Your task to perform on an android device: Open battery settings Image 0: 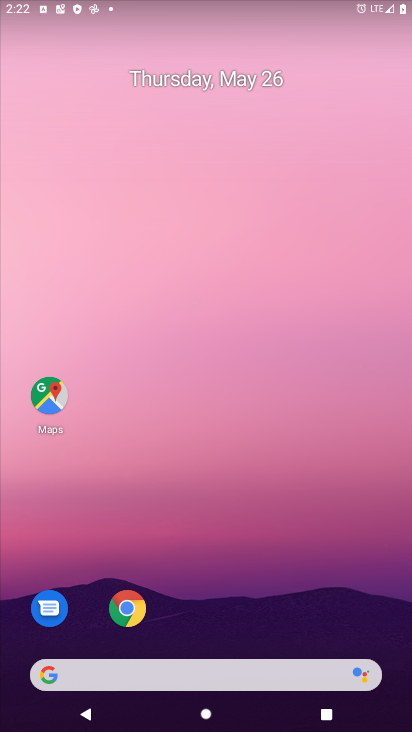
Step 0: drag from (372, 620) to (343, 137)
Your task to perform on an android device: Open battery settings Image 1: 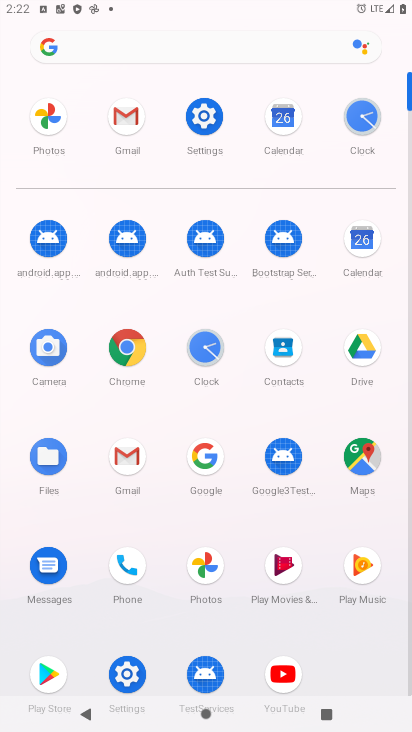
Step 1: click (129, 674)
Your task to perform on an android device: Open battery settings Image 2: 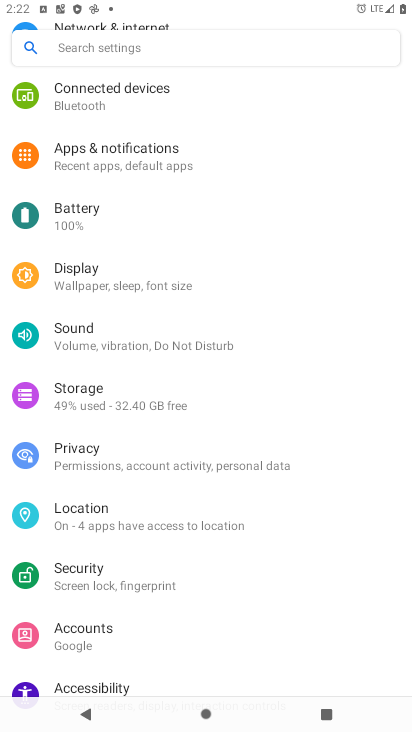
Step 2: click (84, 215)
Your task to perform on an android device: Open battery settings Image 3: 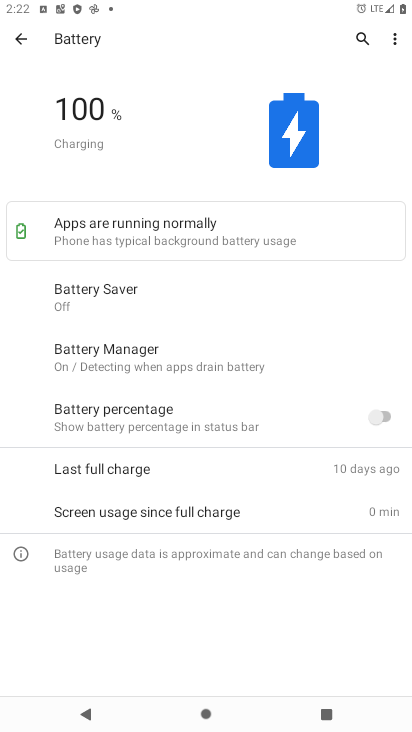
Step 3: task complete